Your task to perform on an android device: Add usb-c to usb-b to the cart on costco.com, then select checkout. Image 0: 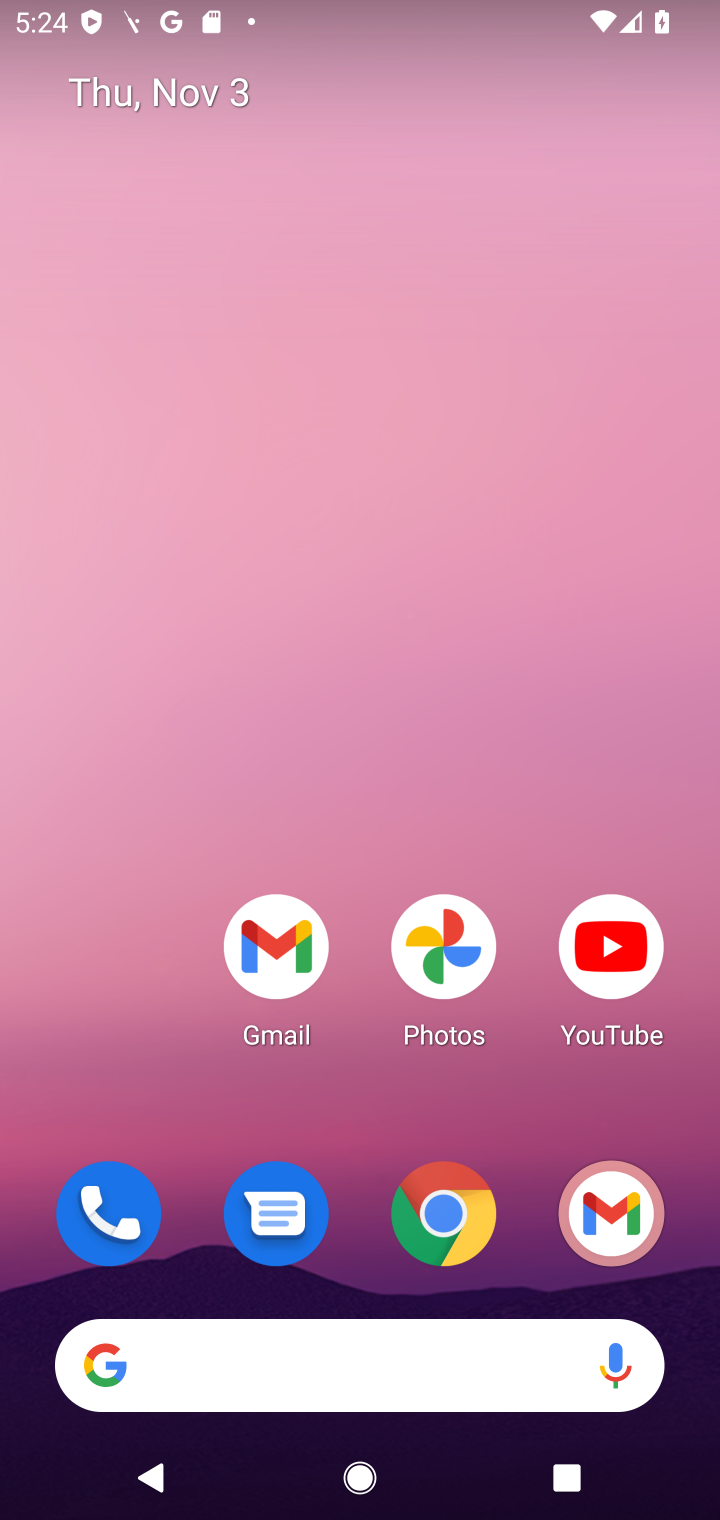
Step 0: click (449, 1226)
Your task to perform on an android device: Add usb-c to usb-b to the cart on costco.com, then select checkout. Image 1: 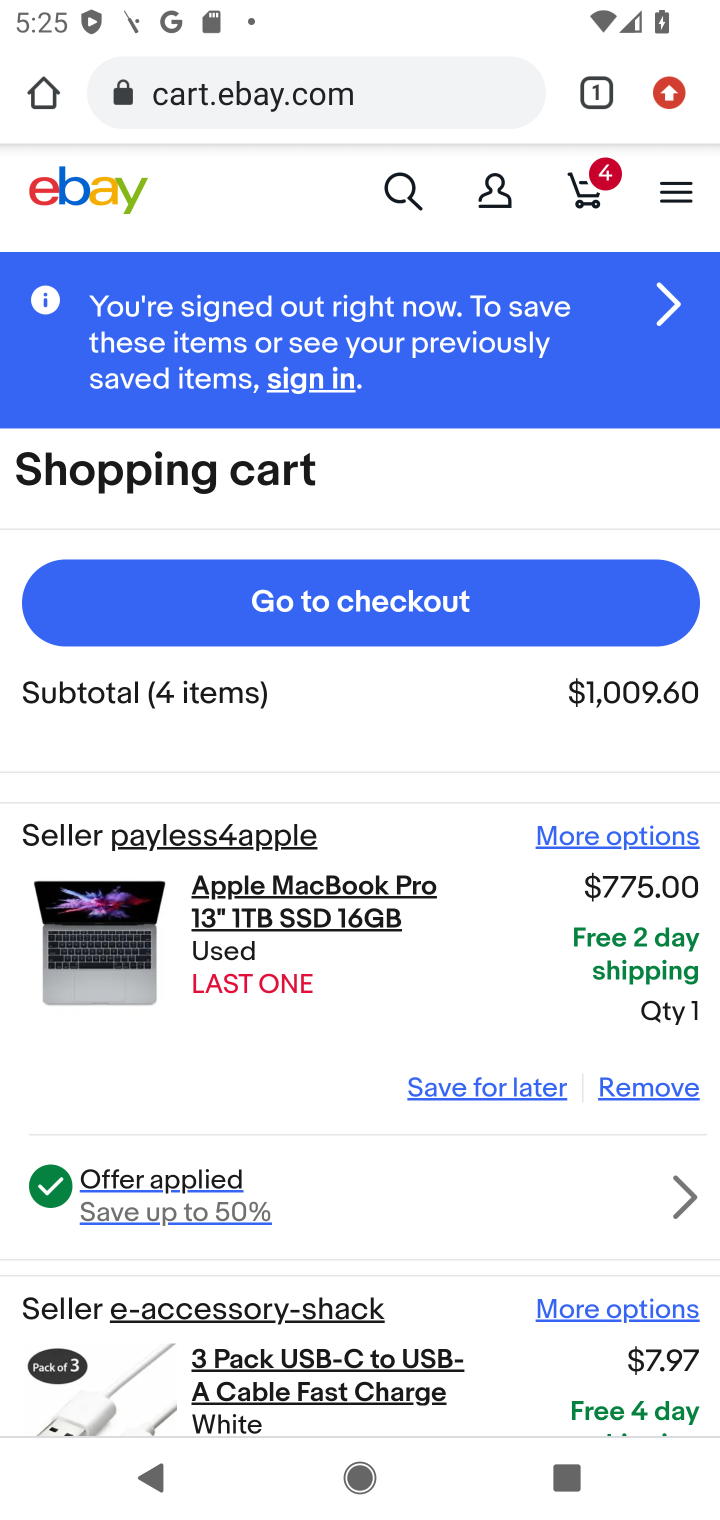
Step 1: click (360, 78)
Your task to perform on an android device: Add usb-c to usb-b to the cart on costco.com, then select checkout. Image 2: 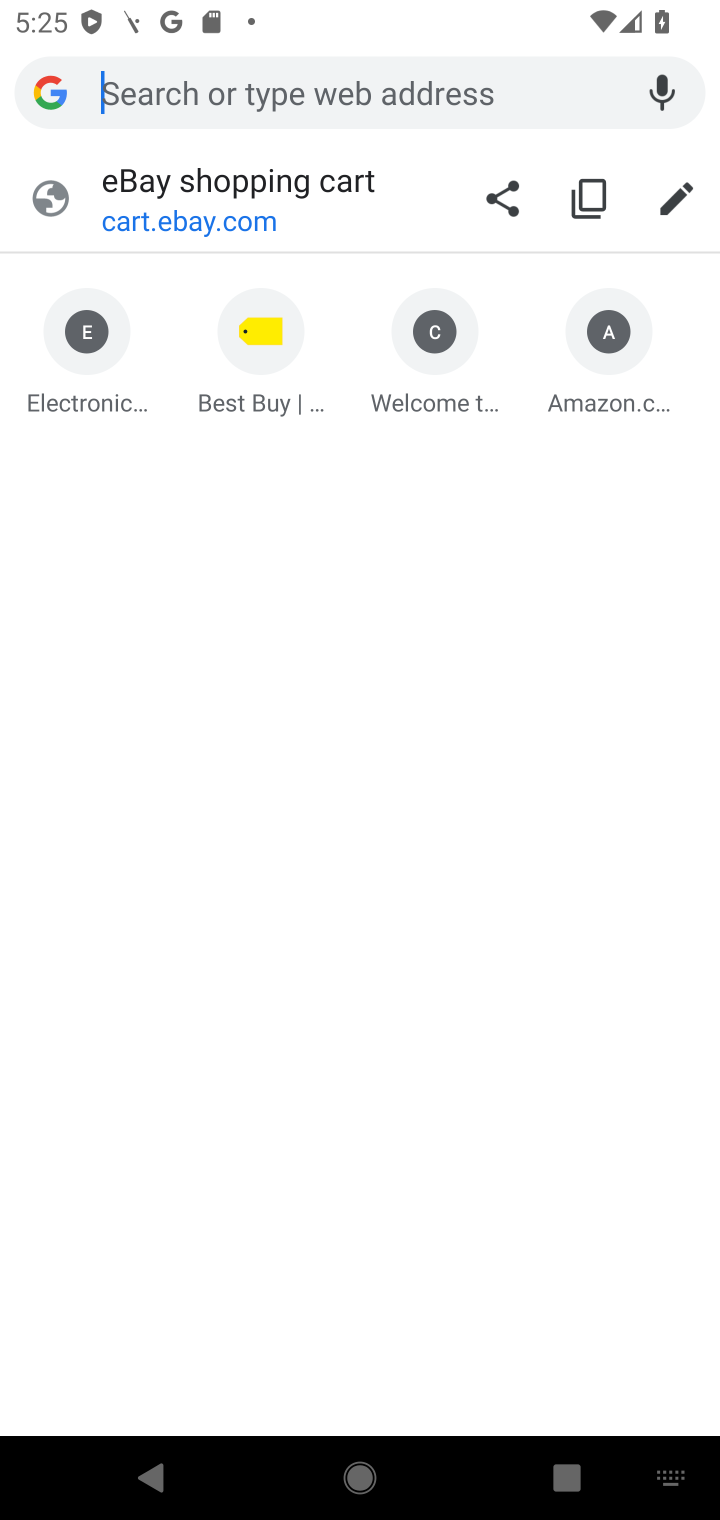
Step 2: type "costco.com"
Your task to perform on an android device: Add usb-c to usb-b to the cart on costco.com, then select checkout. Image 3: 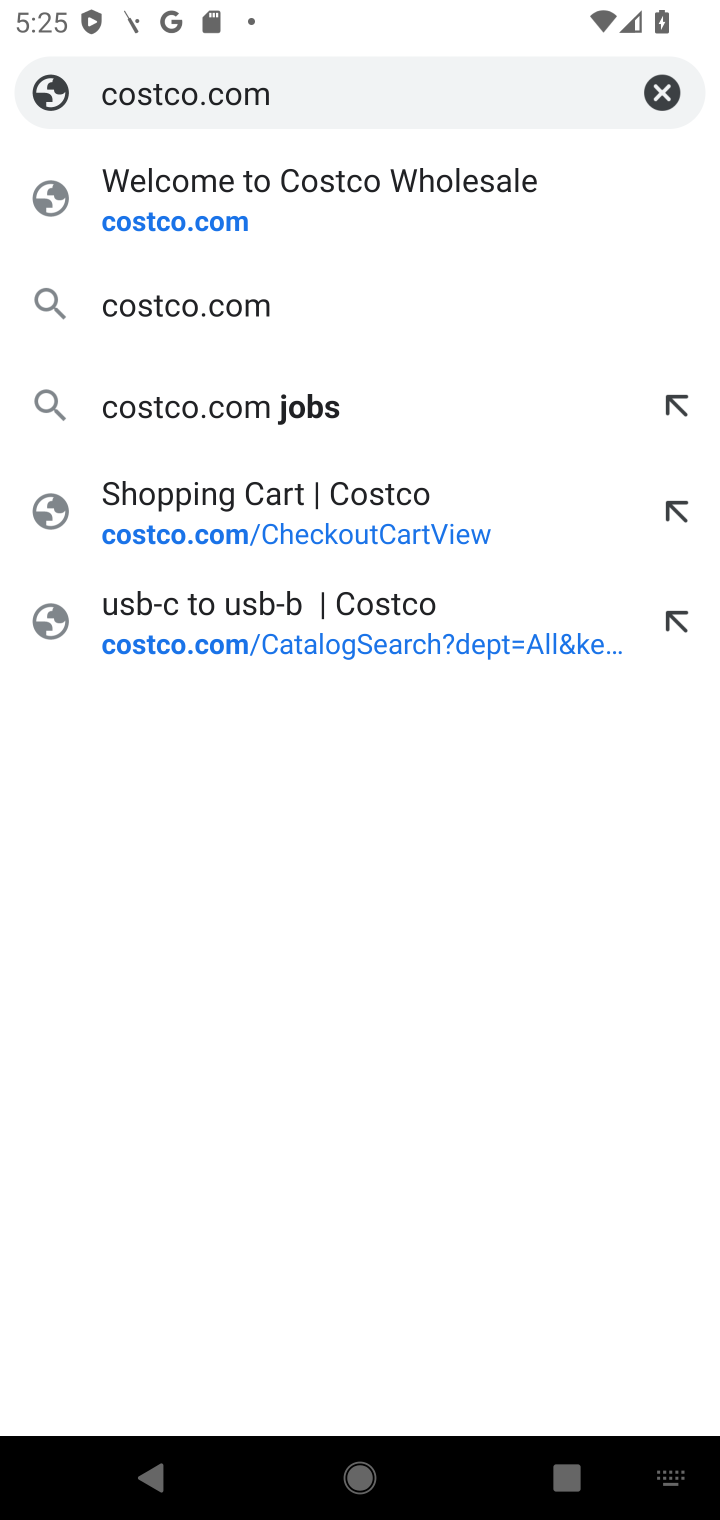
Step 3: click (174, 226)
Your task to perform on an android device: Add usb-c to usb-b to the cart on costco.com, then select checkout. Image 4: 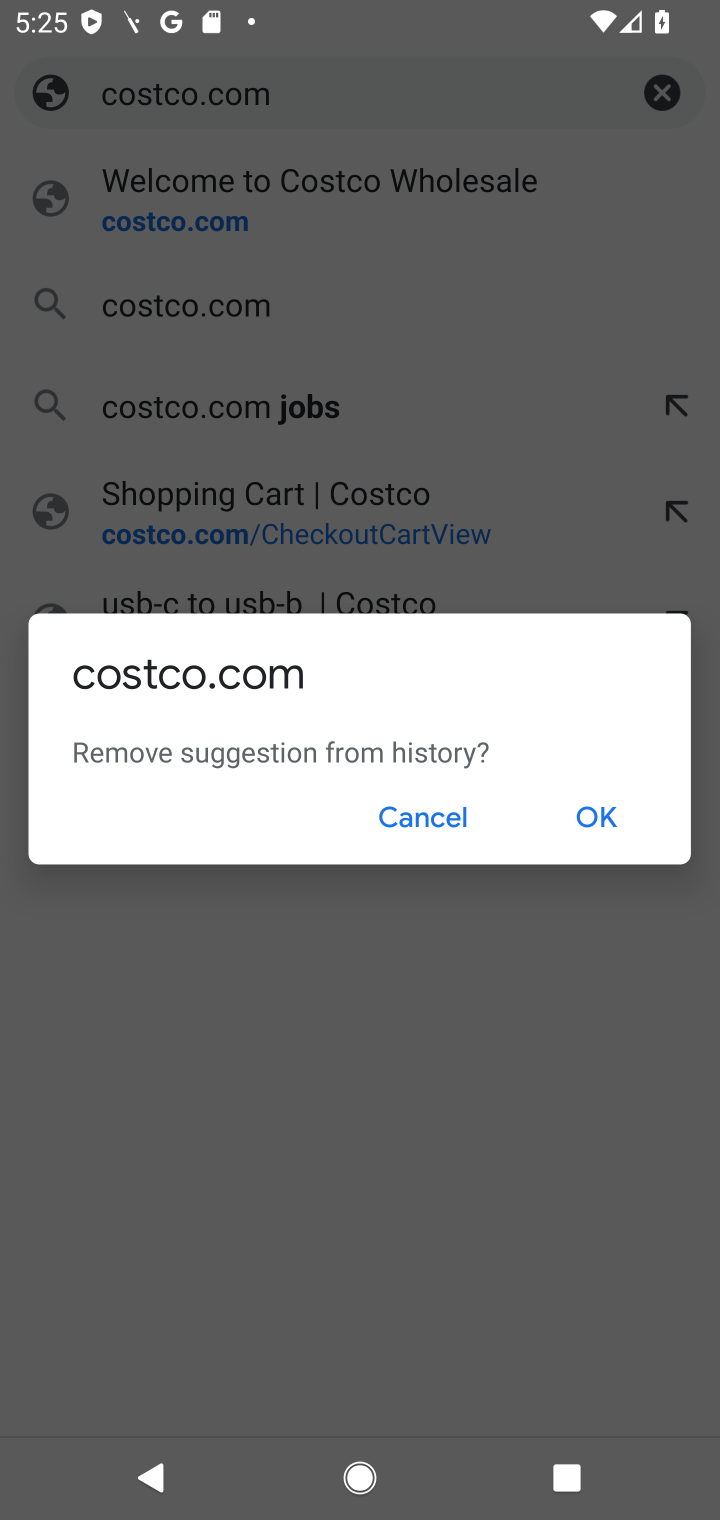
Step 4: click (443, 817)
Your task to perform on an android device: Add usb-c to usb-b to the cart on costco.com, then select checkout. Image 5: 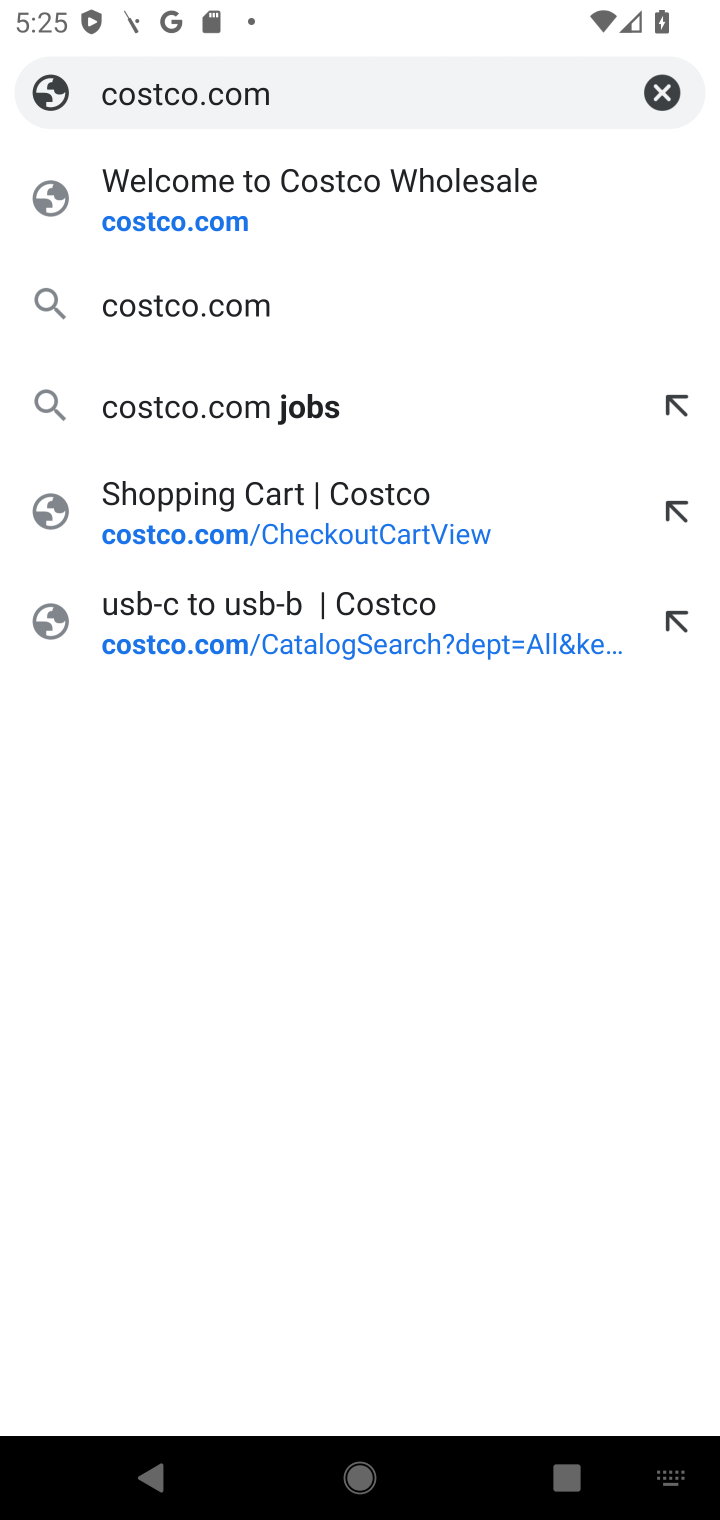
Step 5: click (201, 229)
Your task to perform on an android device: Add usb-c to usb-b to the cart on costco.com, then select checkout. Image 6: 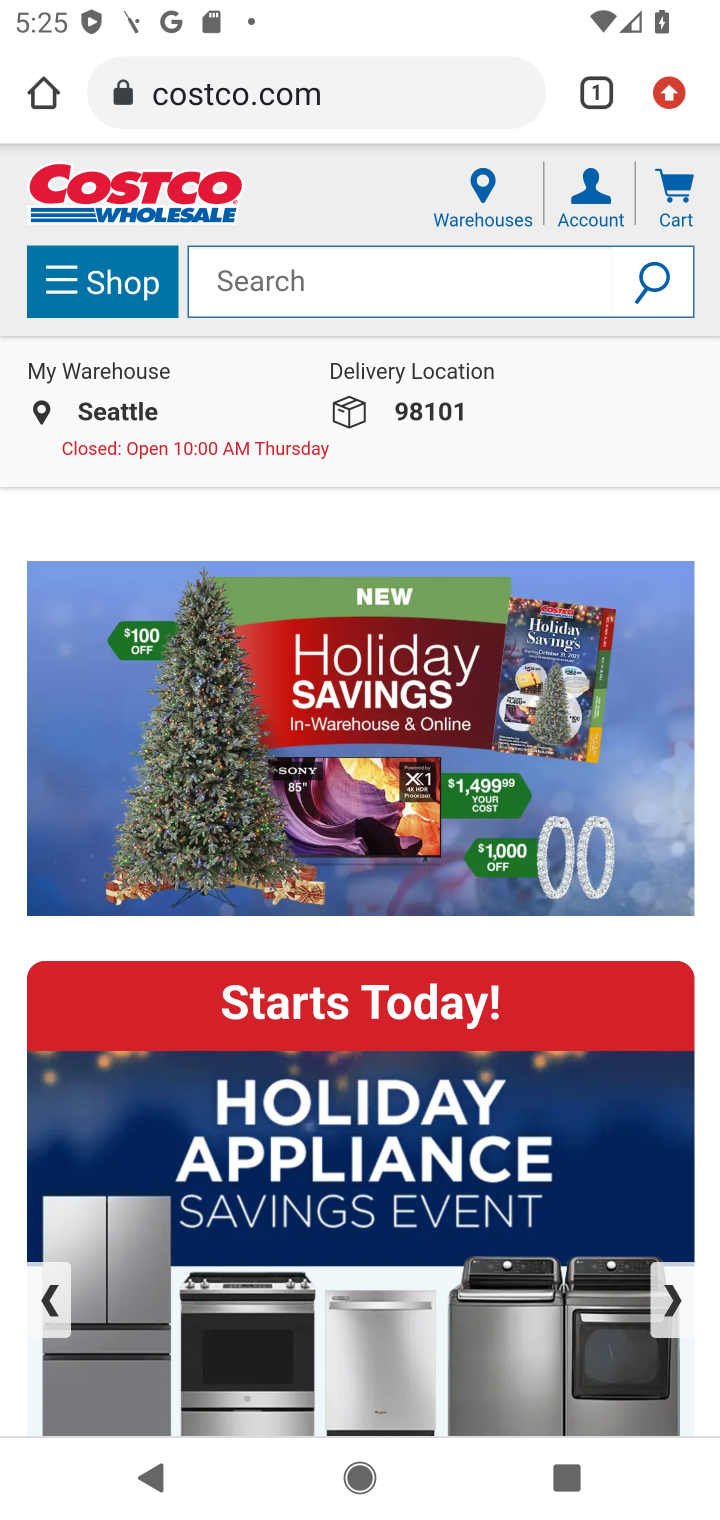
Step 6: click (304, 297)
Your task to perform on an android device: Add usb-c to usb-b to the cart on costco.com, then select checkout. Image 7: 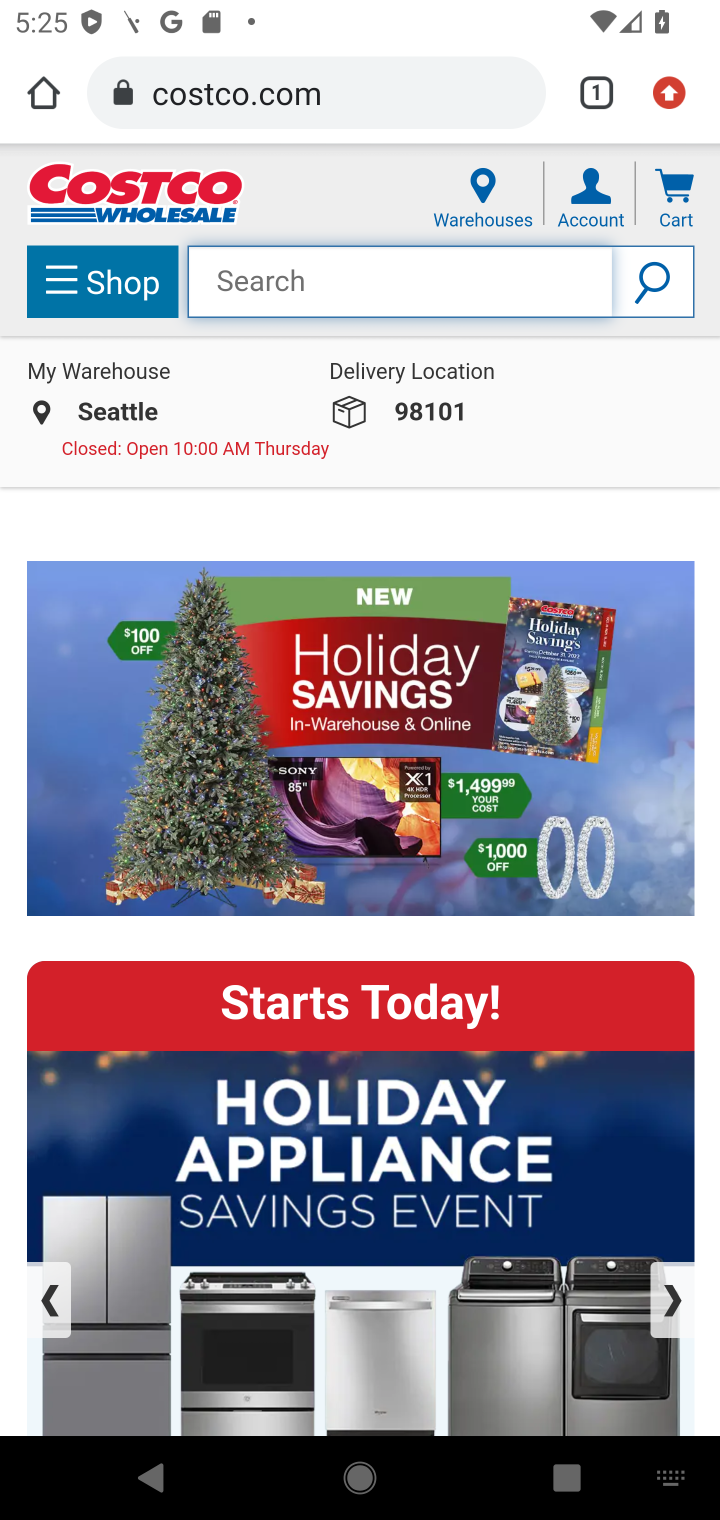
Step 7: type "usb-c to usb-b "
Your task to perform on an android device: Add usb-c to usb-b to the cart on costco.com, then select checkout. Image 8: 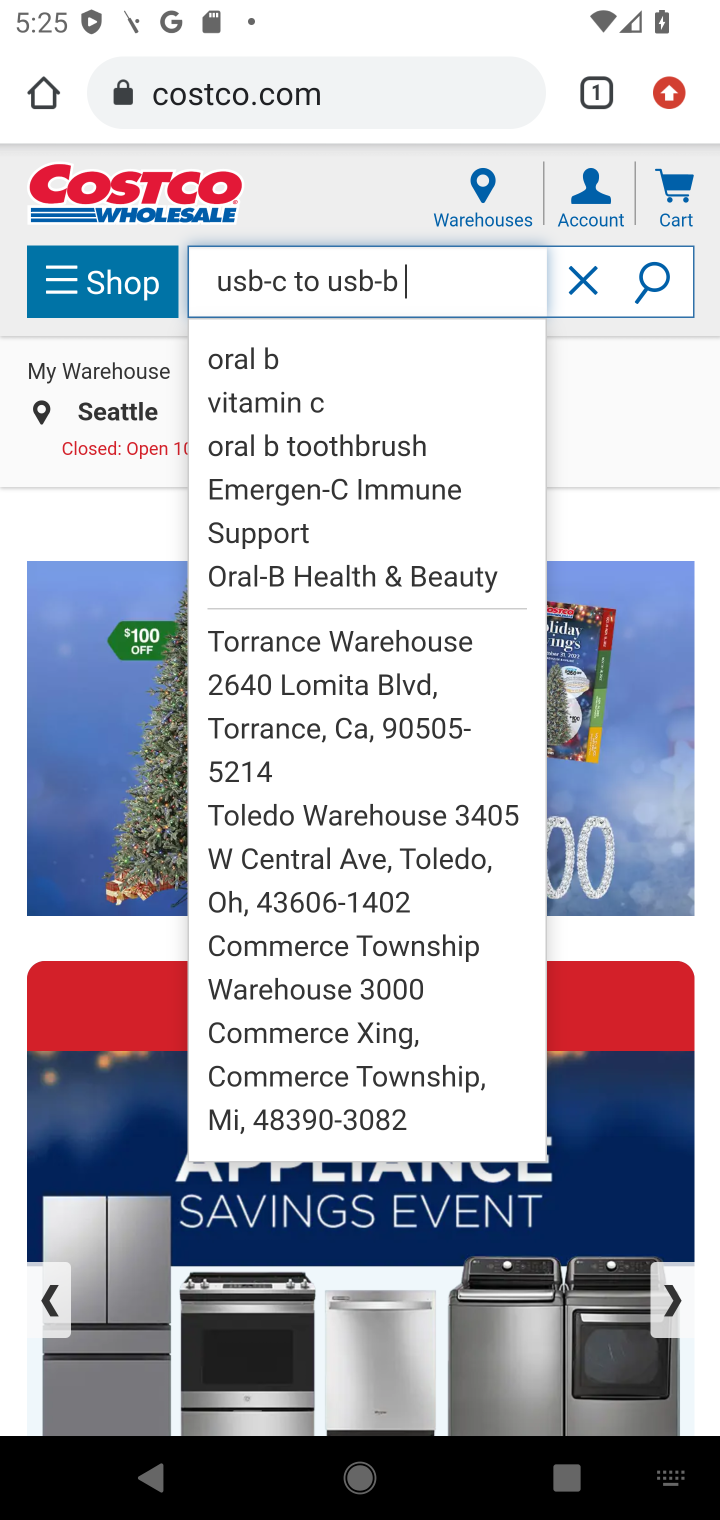
Step 8: click (645, 296)
Your task to perform on an android device: Add usb-c to usb-b to the cart on costco.com, then select checkout. Image 9: 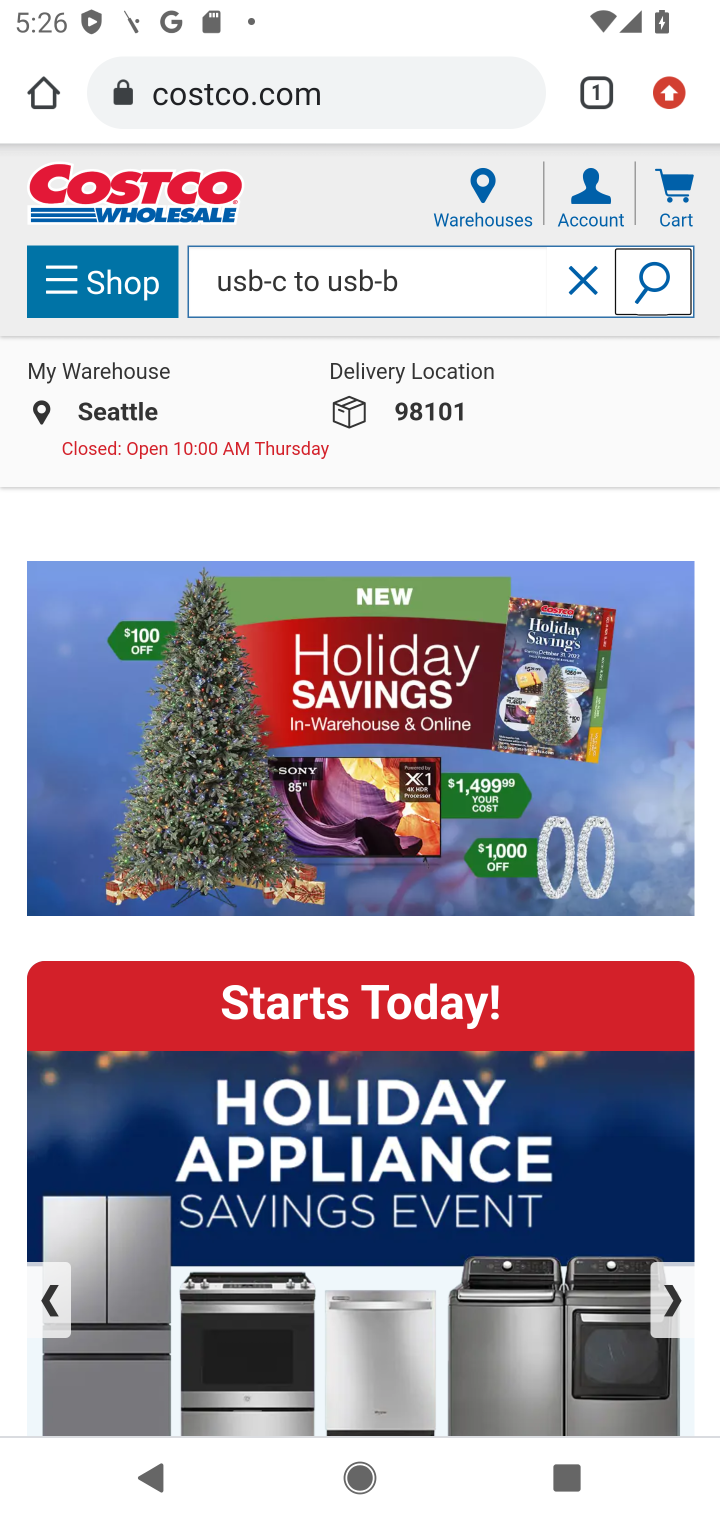
Step 9: click (647, 294)
Your task to perform on an android device: Add usb-c to usb-b to the cart on costco.com, then select checkout. Image 10: 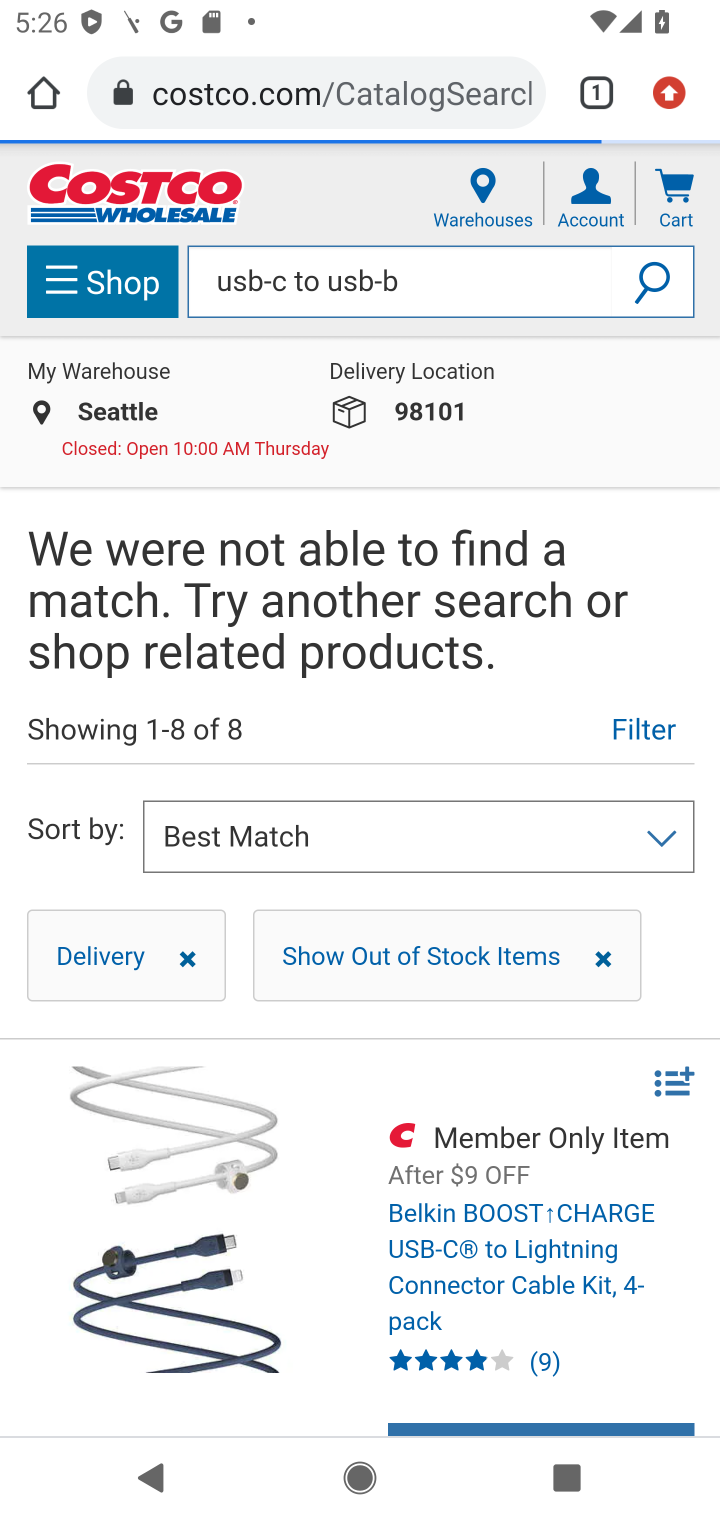
Step 10: task complete